Your task to perform on an android device: Open Youtube and go to "Your channel" Image 0: 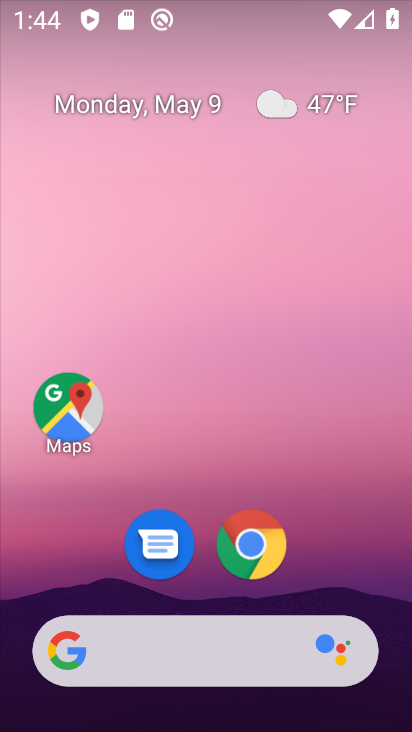
Step 0: drag from (164, 616) to (181, 508)
Your task to perform on an android device: Open Youtube and go to "Your channel" Image 1: 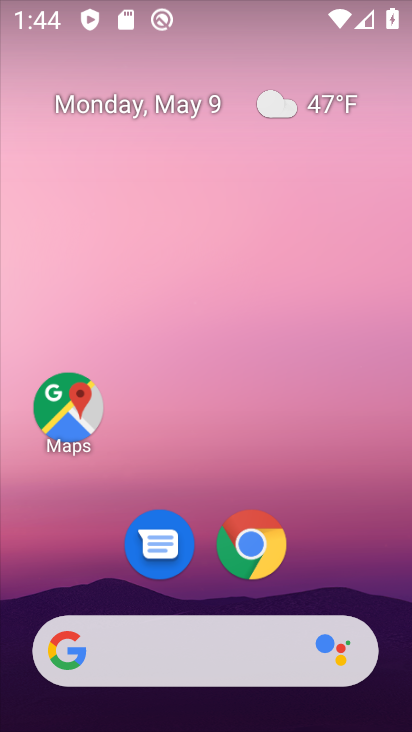
Step 1: drag from (206, 605) to (251, 107)
Your task to perform on an android device: Open Youtube and go to "Your channel" Image 2: 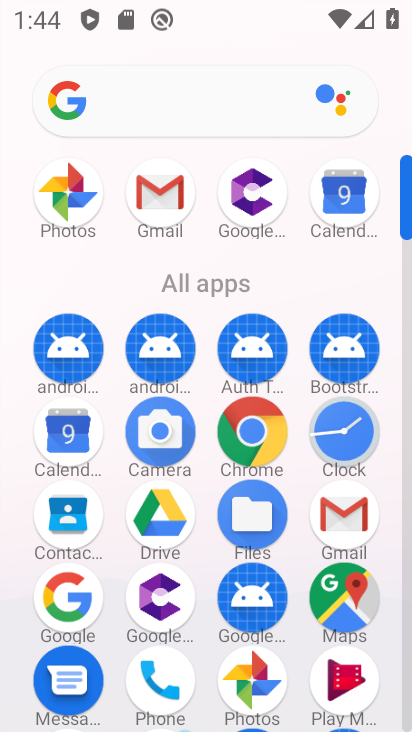
Step 2: drag from (251, 608) to (331, 352)
Your task to perform on an android device: Open Youtube and go to "Your channel" Image 3: 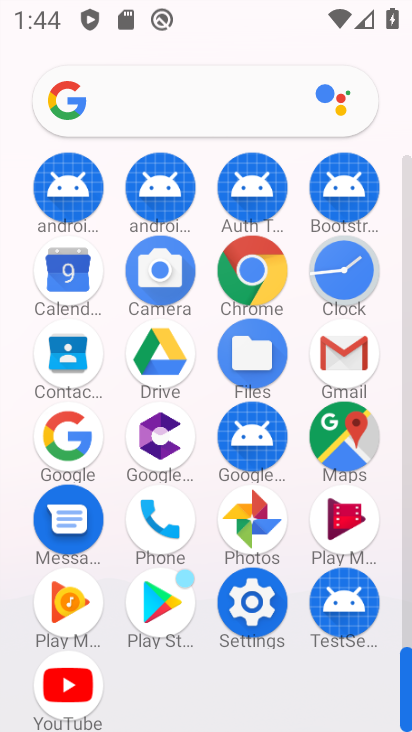
Step 3: click (93, 688)
Your task to perform on an android device: Open Youtube and go to "Your channel" Image 4: 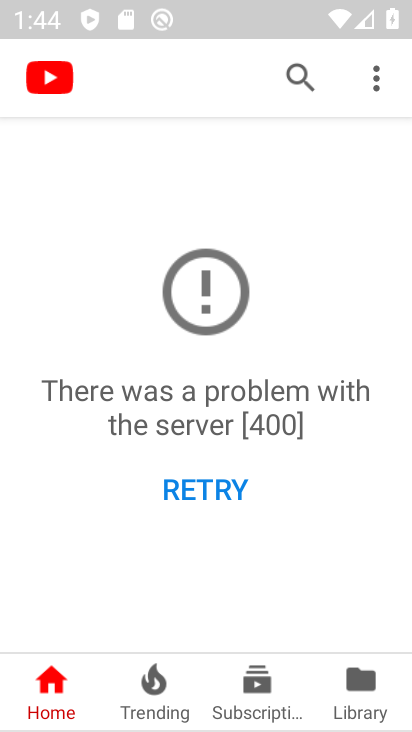
Step 4: click (383, 674)
Your task to perform on an android device: Open Youtube and go to "Your channel" Image 5: 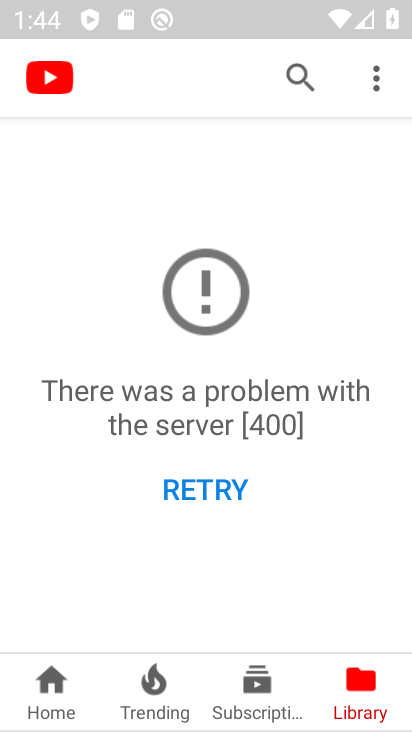
Step 5: task complete